Your task to perform on an android device: Open settings on Google Maps Image 0: 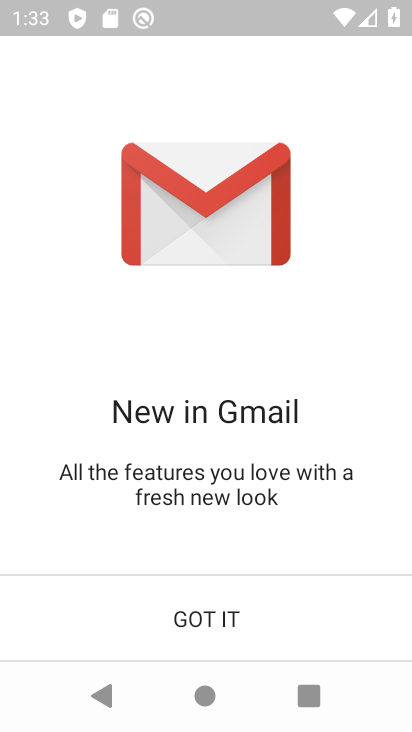
Step 0: press back button
Your task to perform on an android device: Open settings on Google Maps Image 1: 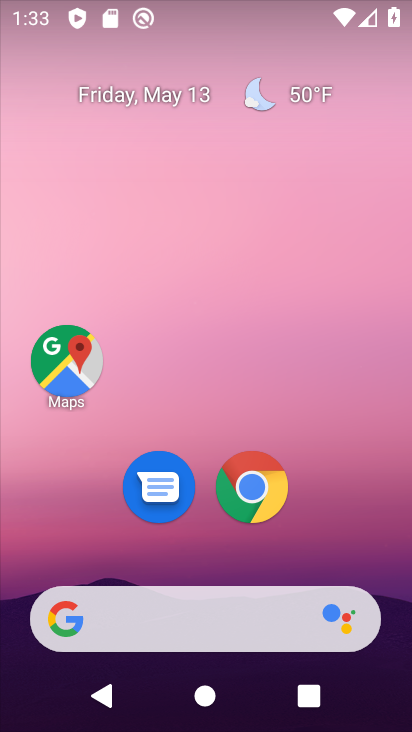
Step 1: click (71, 374)
Your task to perform on an android device: Open settings on Google Maps Image 2: 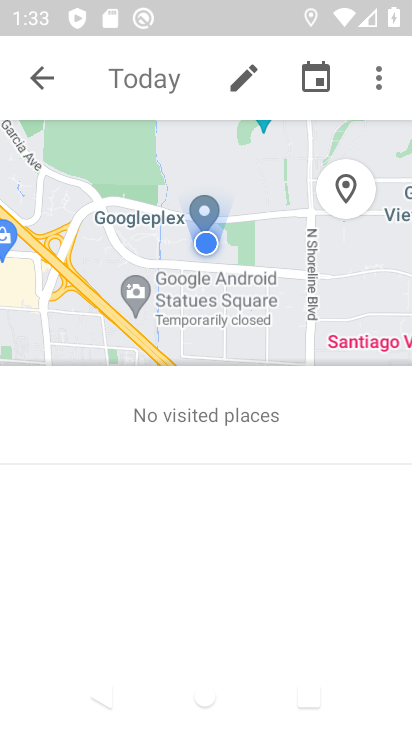
Step 2: click (41, 89)
Your task to perform on an android device: Open settings on Google Maps Image 3: 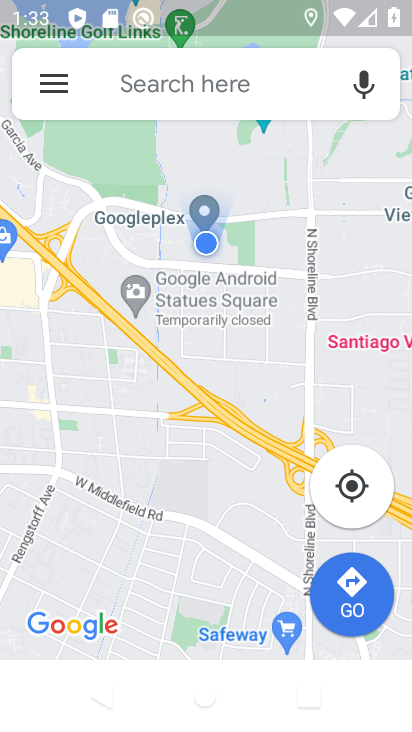
Step 3: click (41, 89)
Your task to perform on an android device: Open settings on Google Maps Image 4: 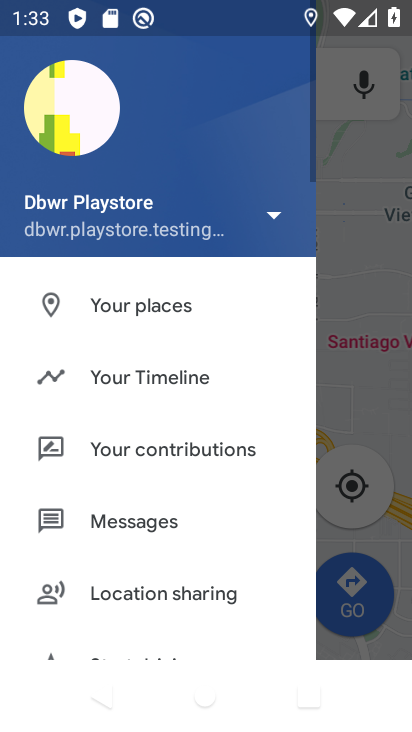
Step 4: drag from (69, 521) to (149, 262)
Your task to perform on an android device: Open settings on Google Maps Image 5: 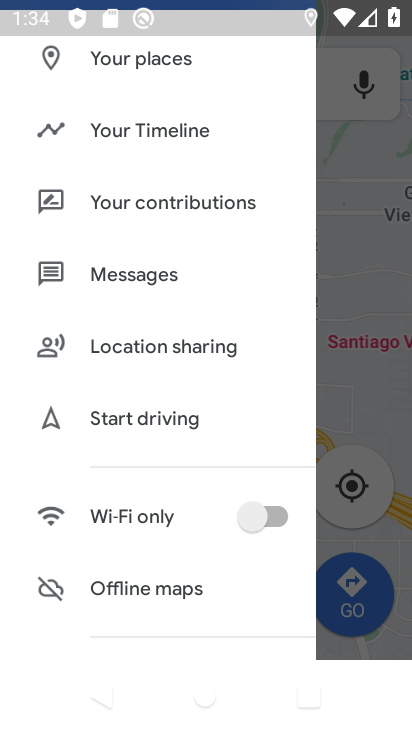
Step 5: drag from (137, 474) to (186, 251)
Your task to perform on an android device: Open settings on Google Maps Image 6: 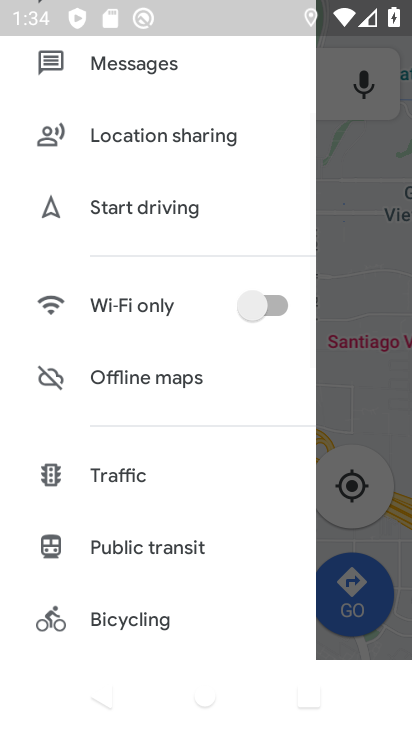
Step 6: drag from (137, 582) to (185, 236)
Your task to perform on an android device: Open settings on Google Maps Image 7: 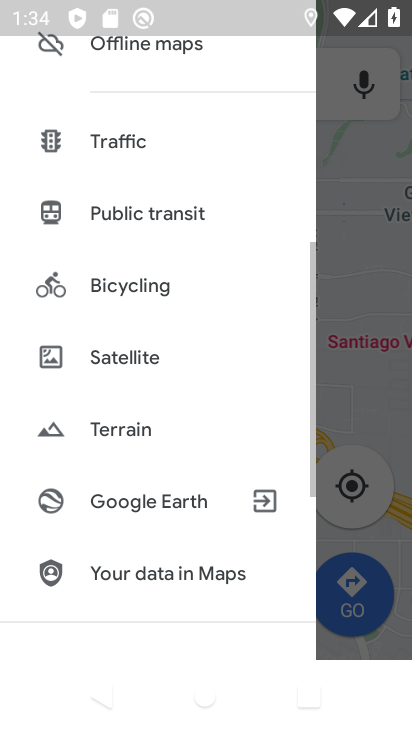
Step 7: drag from (133, 603) to (190, 284)
Your task to perform on an android device: Open settings on Google Maps Image 8: 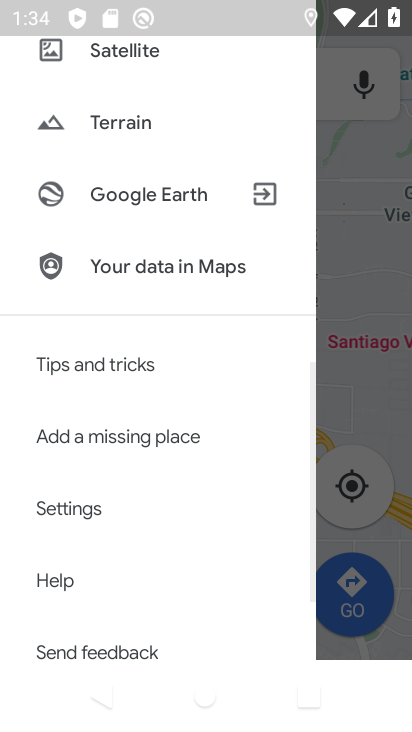
Step 8: drag from (117, 619) to (192, 316)
Your task to perform on an android device: Open settings on Google Maps Image 9: 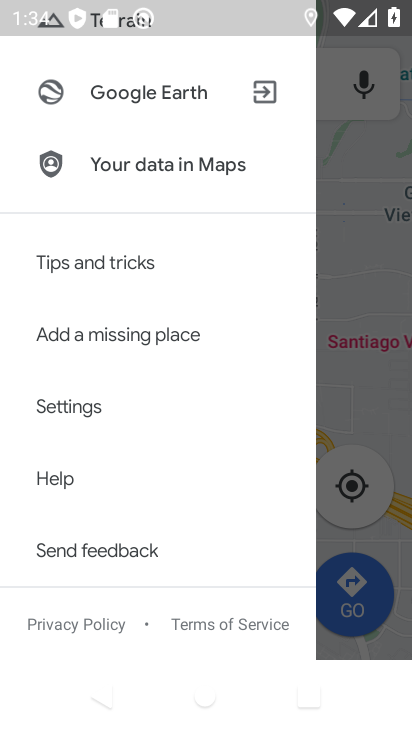
Step 9: click (137, 414)
Your task to perform on an android device: Open settings on Google Maps Image 10: 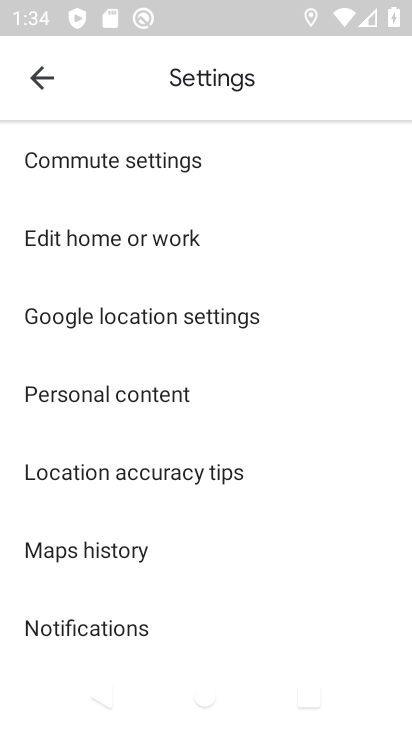
Step 10: task complete